Your task to perform on an android device: allow notifications from all sites in the chrome app Image 0: 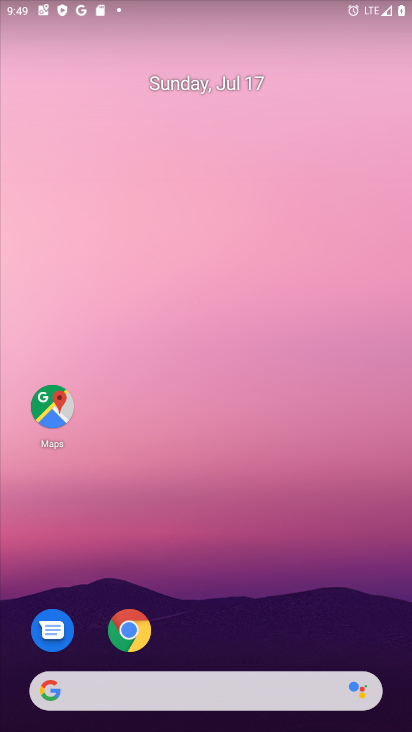
Step 0: press home button
Your task to perform on an android device: allow notifications from all sites in the chrome app Image 1: 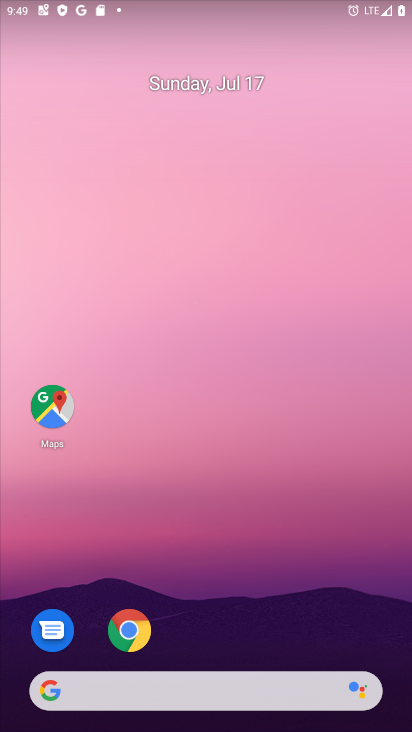
Step 1: click (127, 628)
Your task to perform on an android device: allow notifications from all sites in the chrome app Image 2: 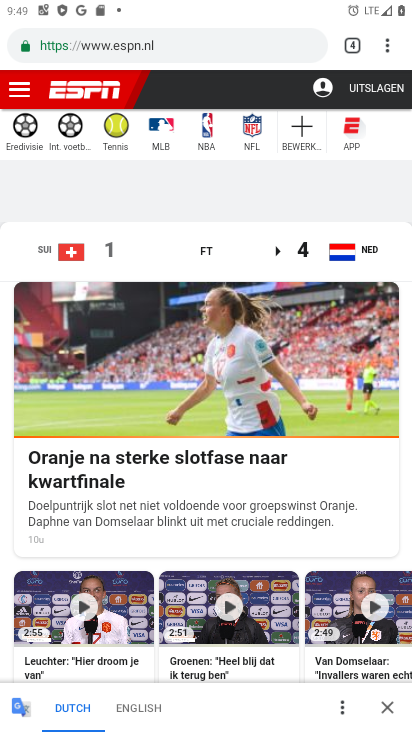
Step 2: click (383, 40)
Your task to perform on an android device: allow notifications from all sites in the chrome app Image 3: 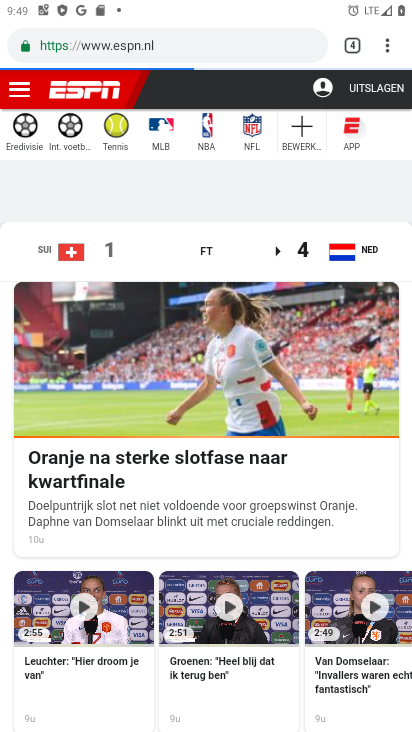
Step 3: click (383, 40)
Your task to perform on an android device: allow notifications from all sites in the chrome app Image 4: 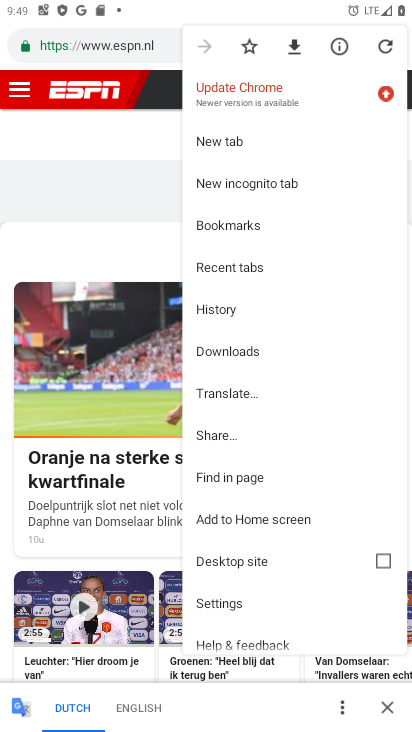
Step 4: click (239, 603)
Your task to perform on an android device: allow notifications from all sites in the chrome app Image 5: 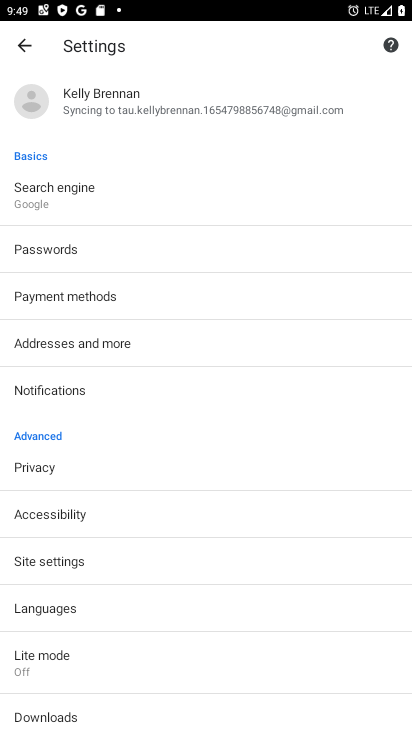
Step 5: click (91, 566)
Your task to perform on an android device: allow notifications from all sites in the chrome app Image 6: 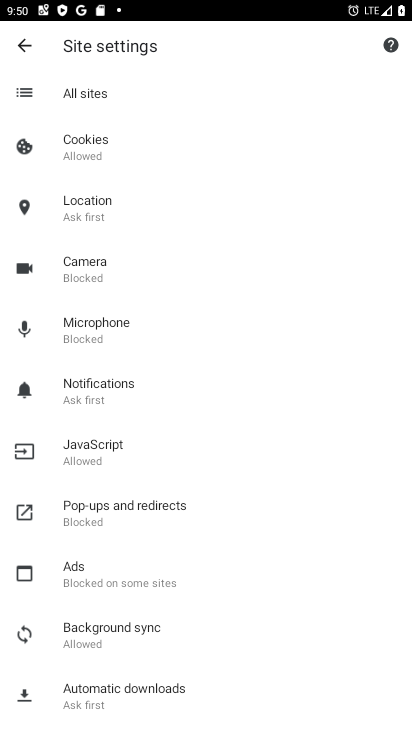
Step 6: click (115, 386)
Your task to perform on an android device: allow notifications from all sites in the chrome app Image 7: 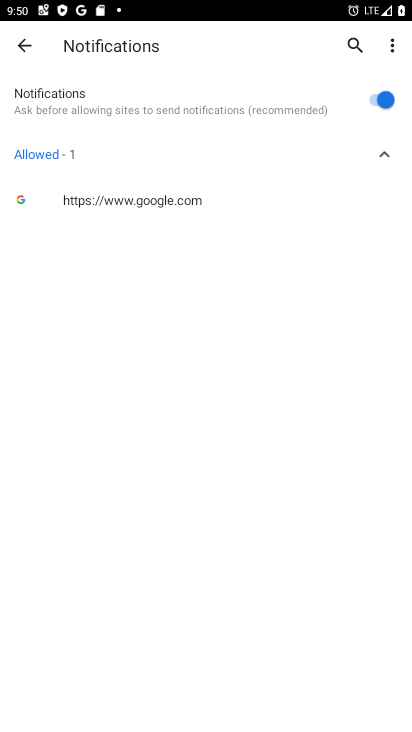
Step 7: task complete